Your task to perform on an android device: Search for a new eyeshadow Image 0: 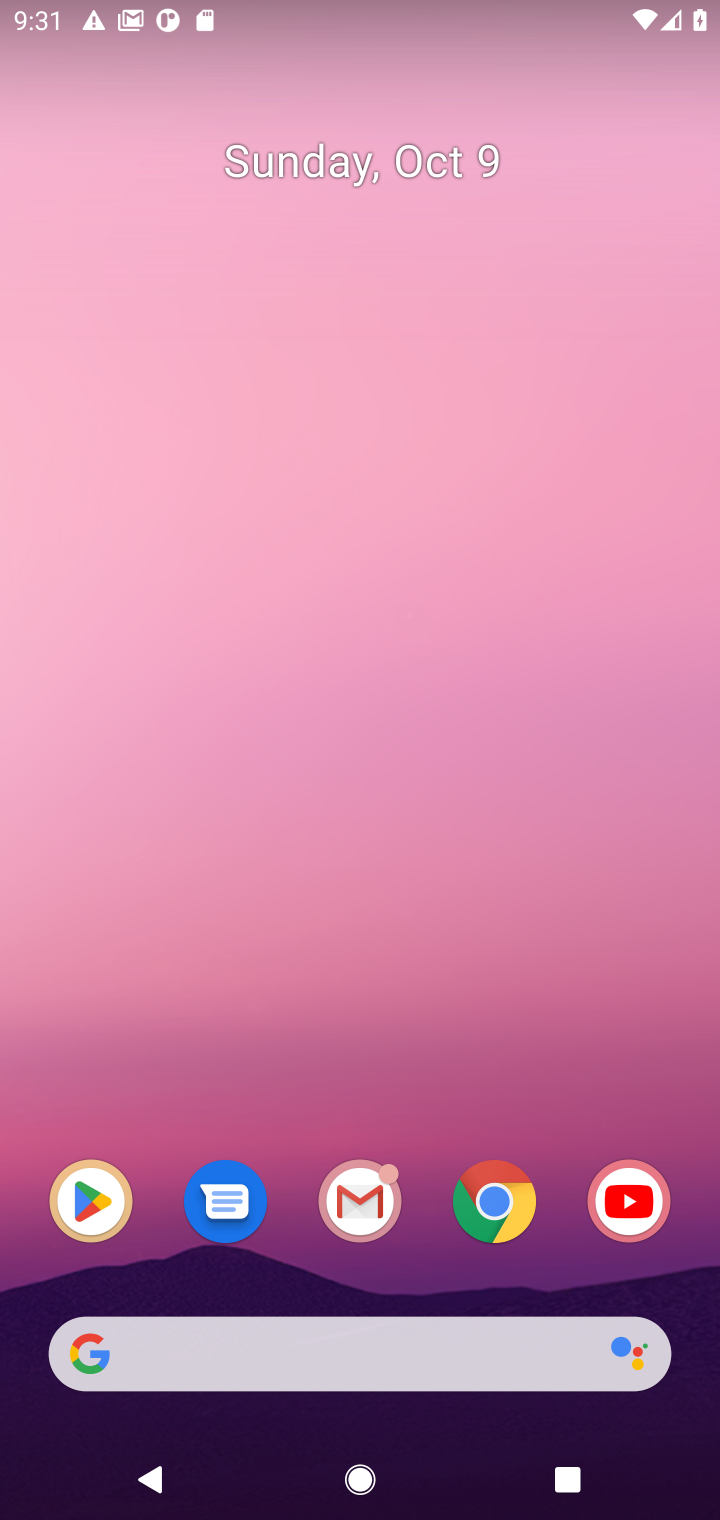
Step 0: click (493, 1191)
Your task to perform on an android device: Search for a new eyeshadow Image 1: 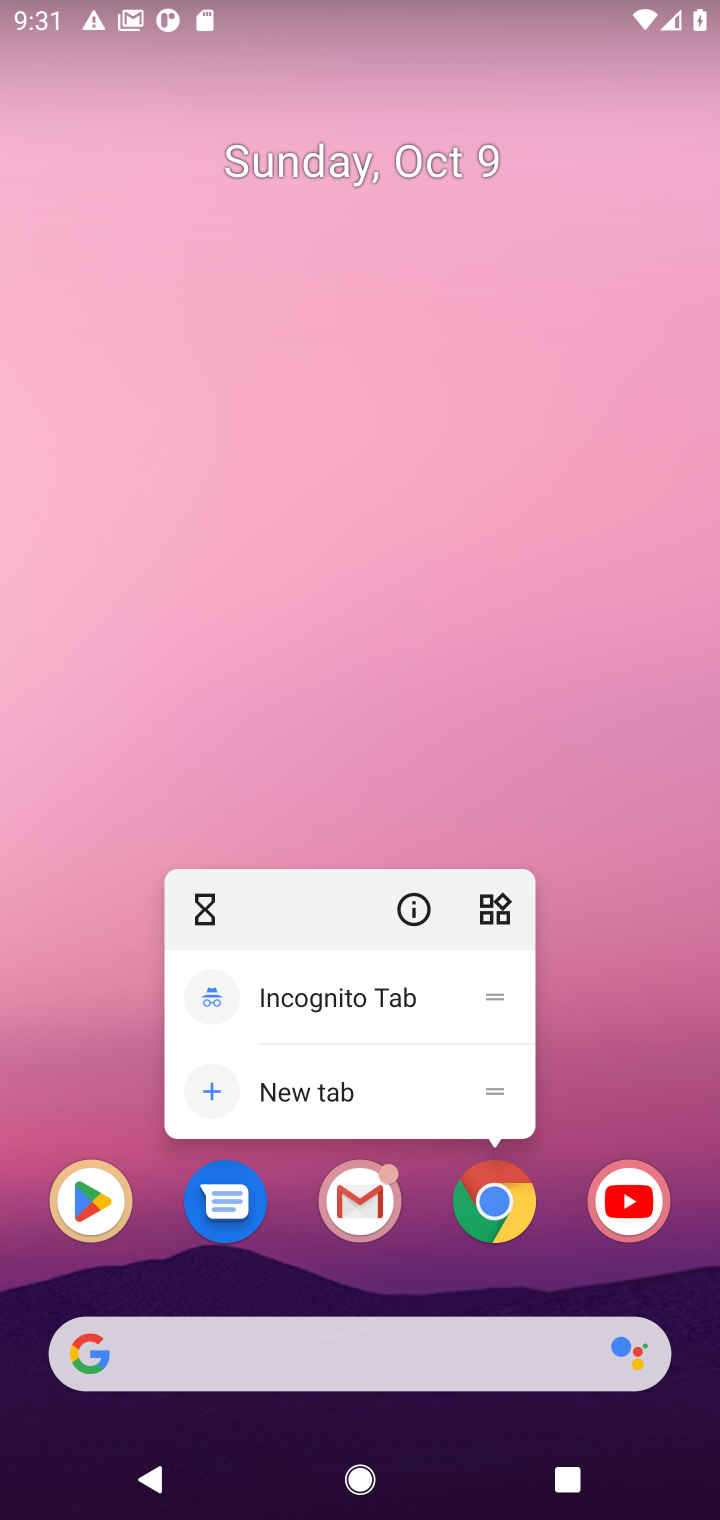
Step 1: click (414, 1361)
Your task to perform on an android device: Search for a new eyeshadow Image 2: 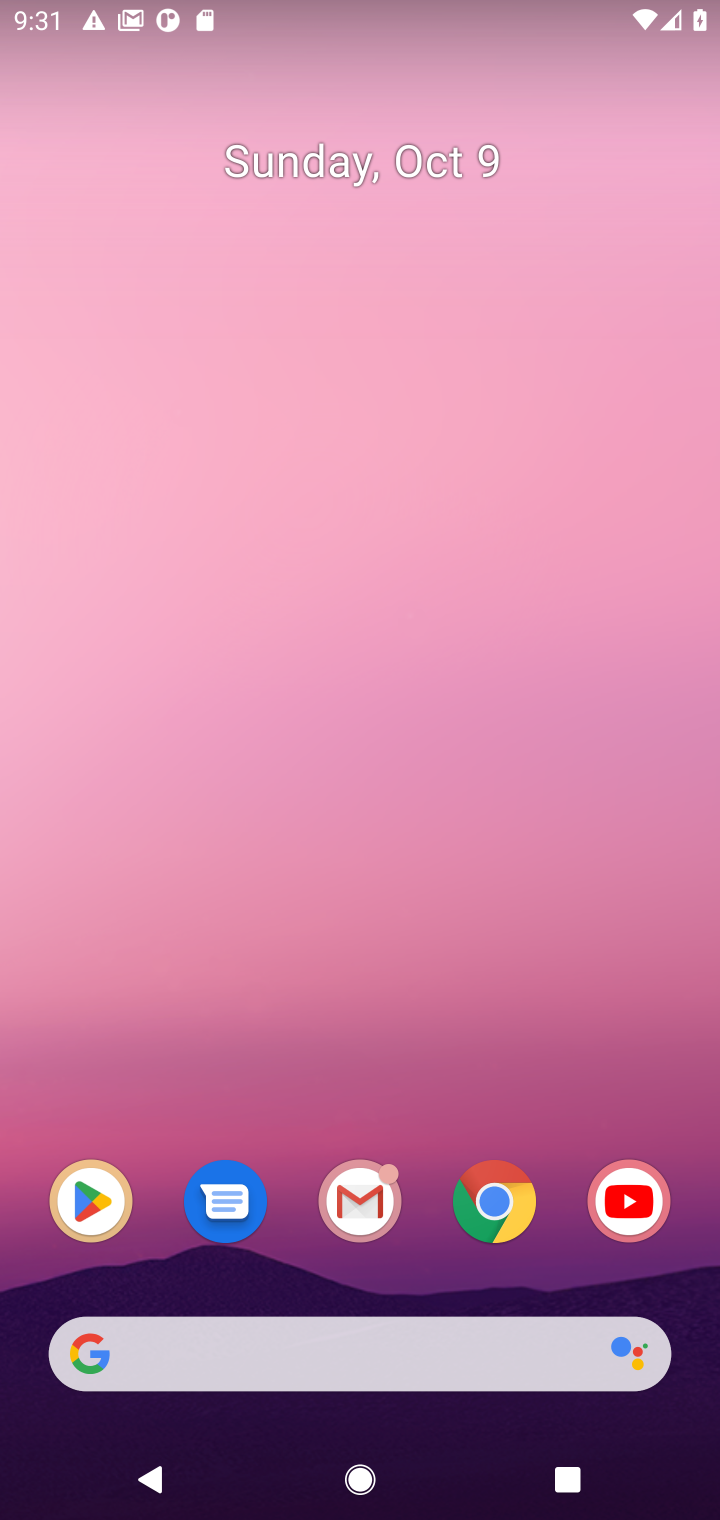
Step 2: click (285, 1357)
Your task to perform on an android device: Search for a new eyeshadow Image 3: 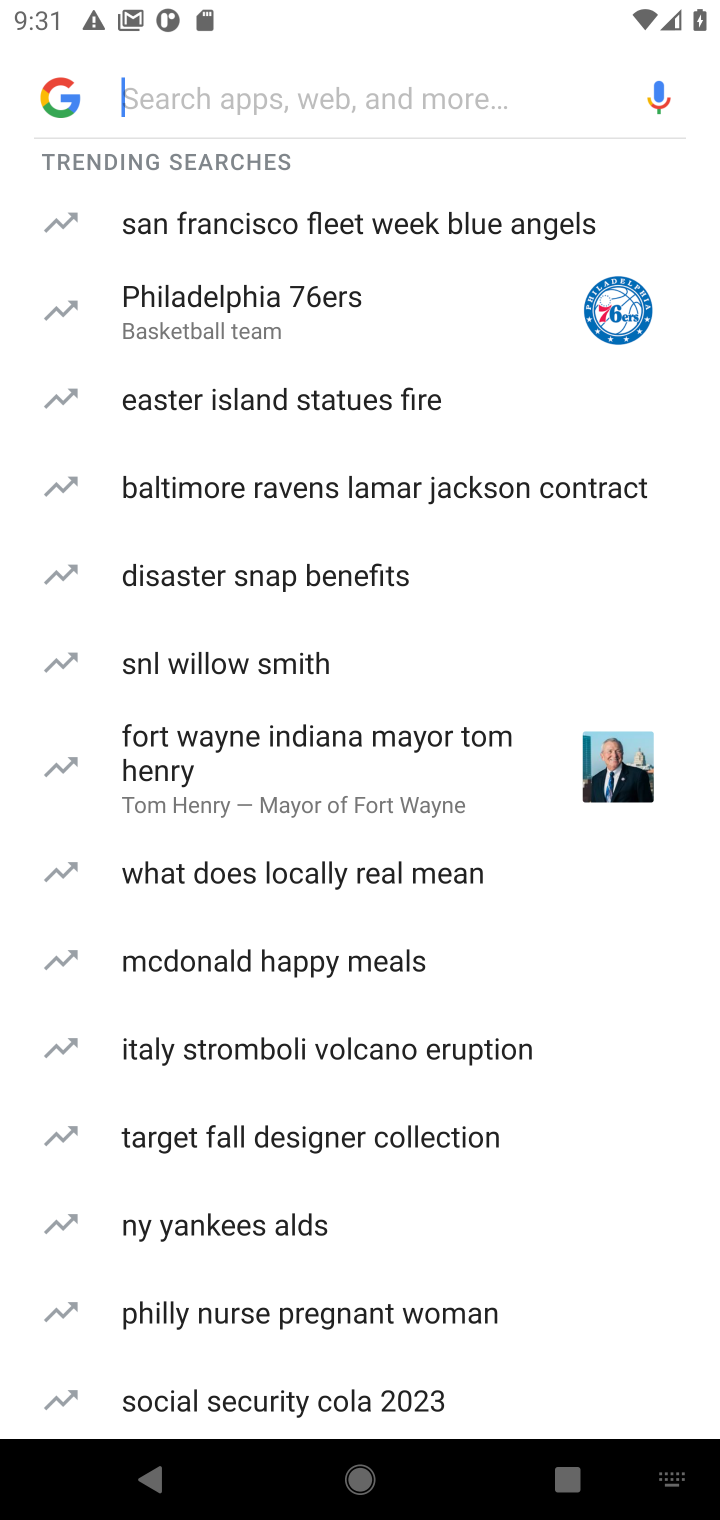
Step 3: type "new eyeshadow"
Your task to perform on an android device: Search for a new eyeshadow Image 4: 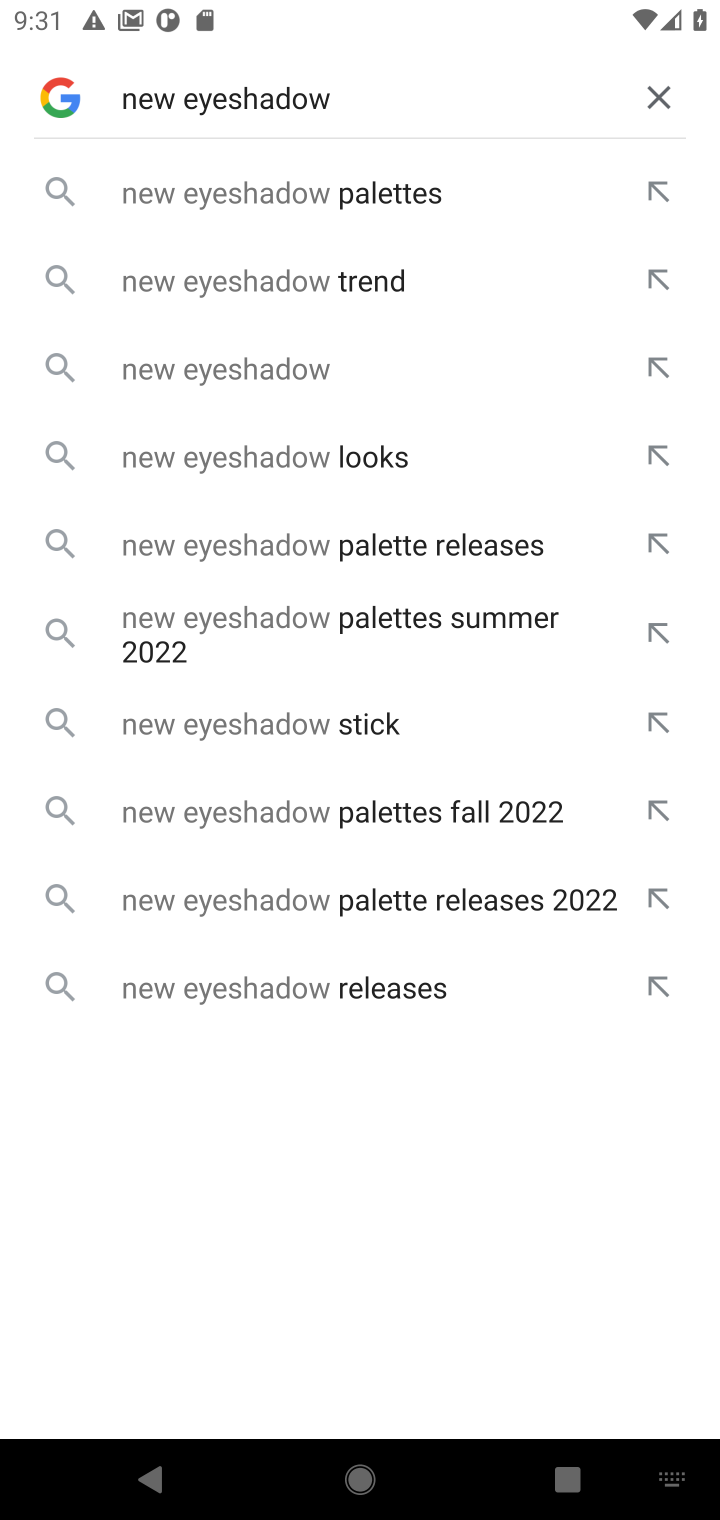
Step 4: press enter
Your task to perform on an android device: Search for a new eyeshadow Image 5: 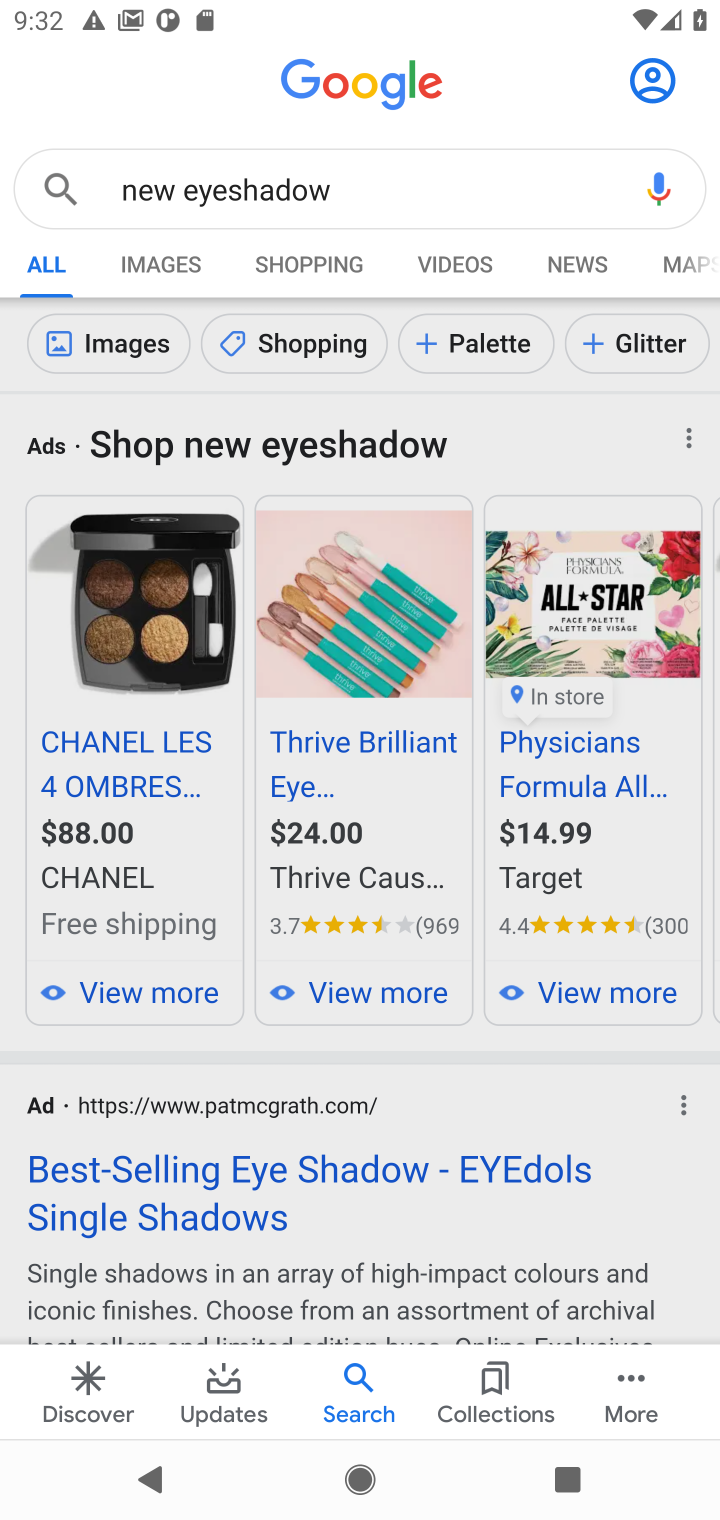
Step 5: task complete